Your task to perform on an android device: Go to Wikipedia Image 0: 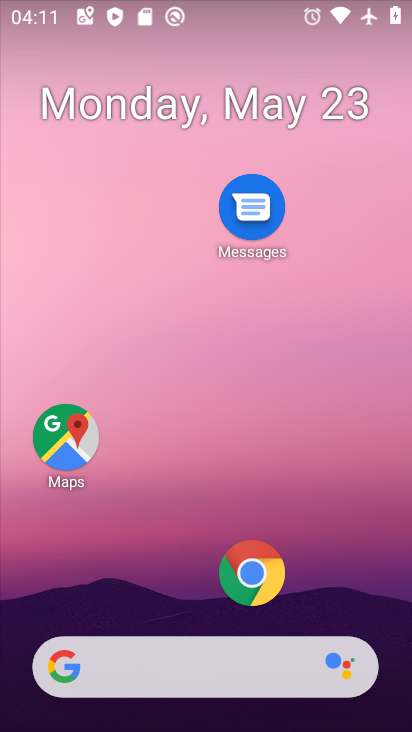
Step 0: drag from (287, 638) to (355, 2)
Your task to perform on an android device: Go to Wikipedia Image 1: 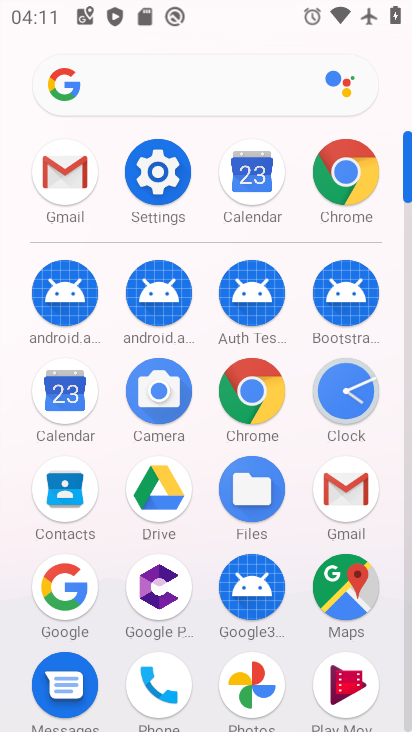
Step 1: click (261, 390)
Your task to perform on an android device: Go to Wikipedia Image 2: 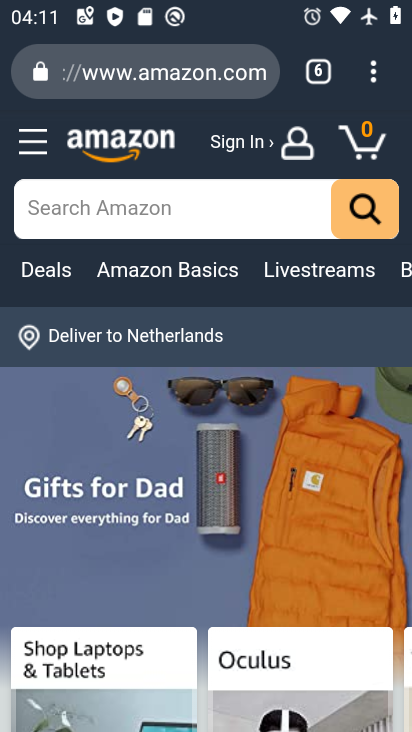
Step 2: drag from (368, 75) to (214, 119)
Your task to perform on an android device: Go to Wikipedia Image 3: 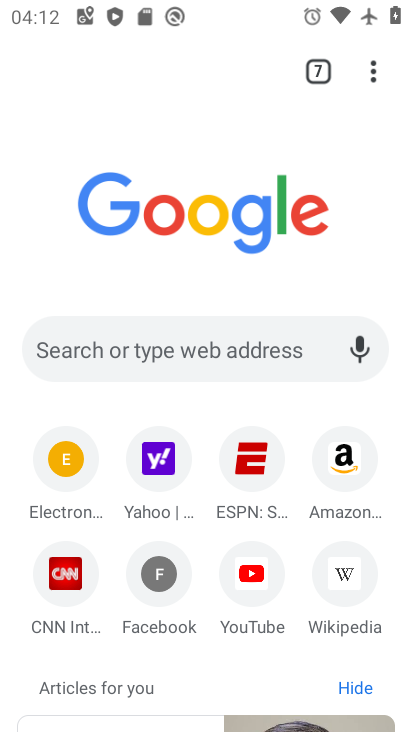
Step 3: click (363, 583)
Your task to perform on an android device: Go to Wikipedia Image 4: 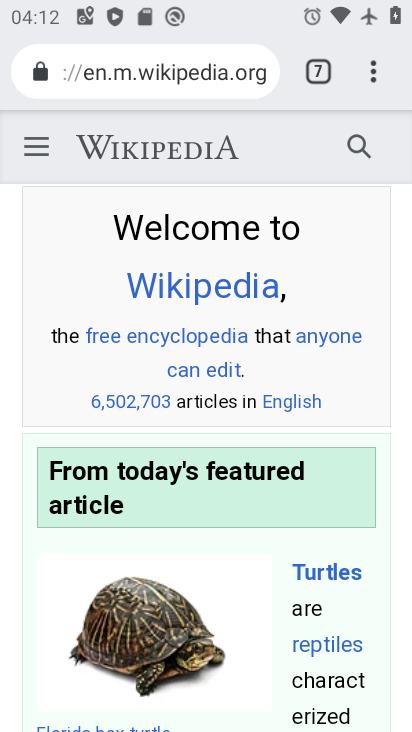
Step 4: task complete